Your task to perform on an android device: Open Chrome and go to settings Image 0: 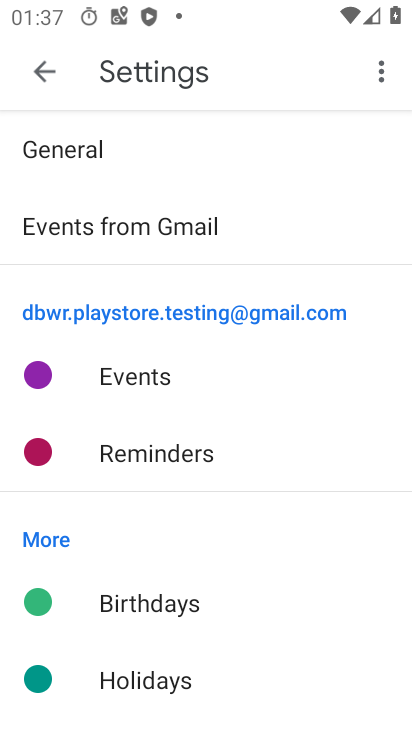
Step 0: press home button
Your task to perform on an android device: Open Chrome and go to settings Image 1: 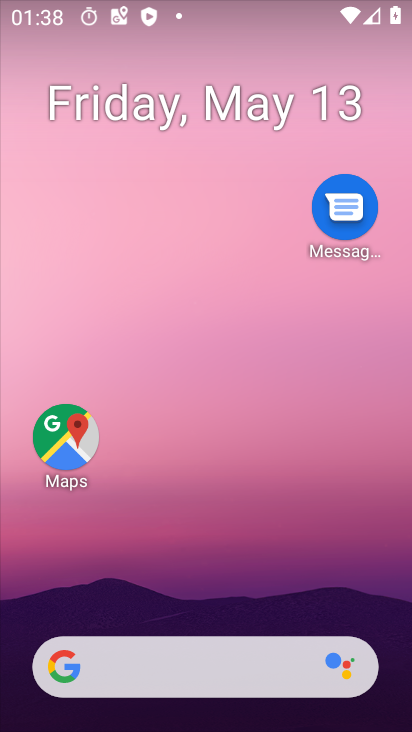
Step 1: drag from (282, 542) to (234, 77)
Your task to perform on an android device: Open Chrome and go to settings Image 2: 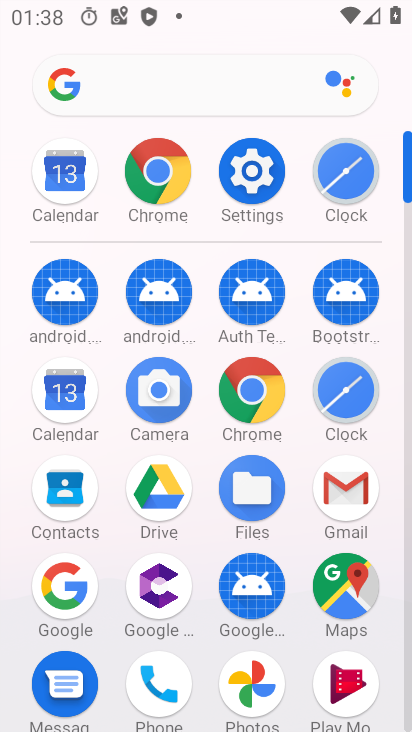
Step 2: click (166, 175)
Your task to perform on an android device: Open Chrome and go to settings Image 3: 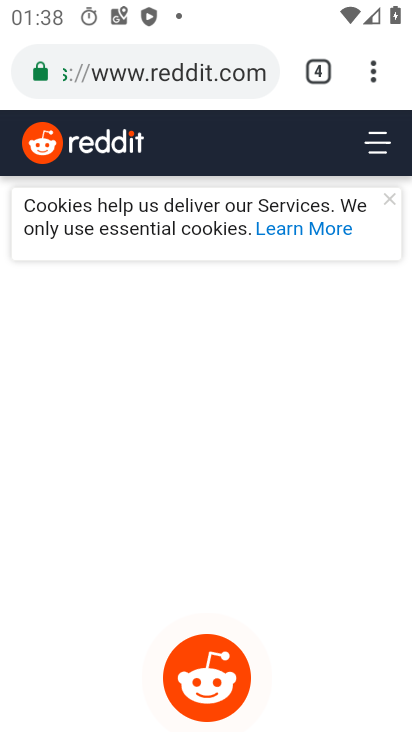
Step 3: task complete